Your task to perform on an android device: Search for seafood restaurants on Google Maps Image 0: 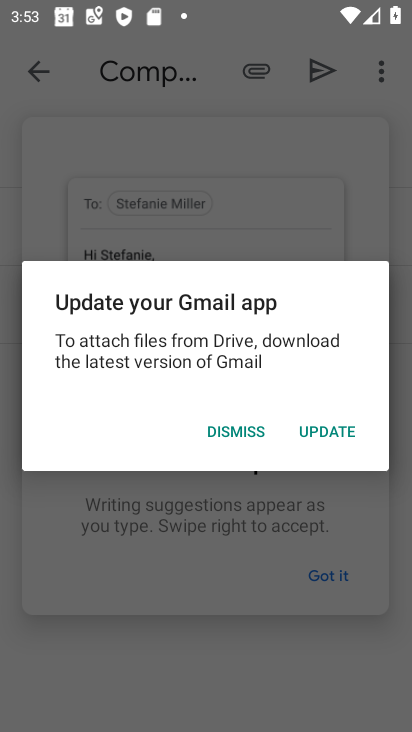
Step 0: press home button
Your task to perform on an android device: Search for seafood restaurants on Google Maps Image 1: 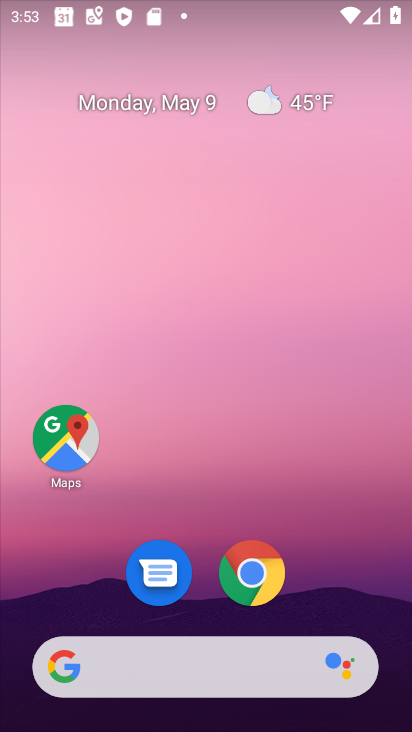
Step 1: click (65, 441)
Your task to perform on an android device: Search for seafood restaurants on Google Maps Image 2: 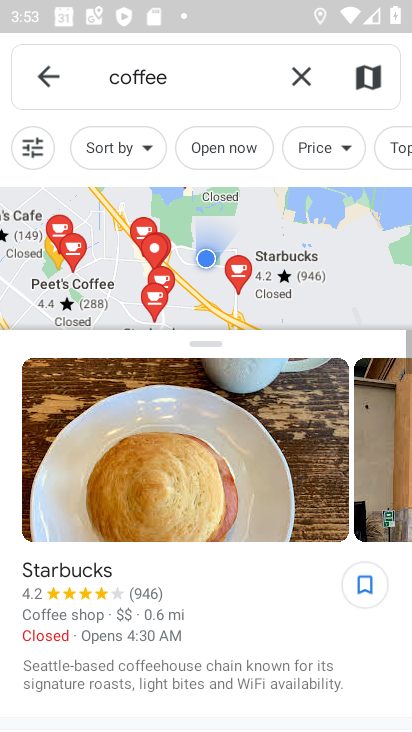
Step 2: click (287, 81)
Your task to perform on an android device: Search for seafood restaurants on Google Maps Image 3: 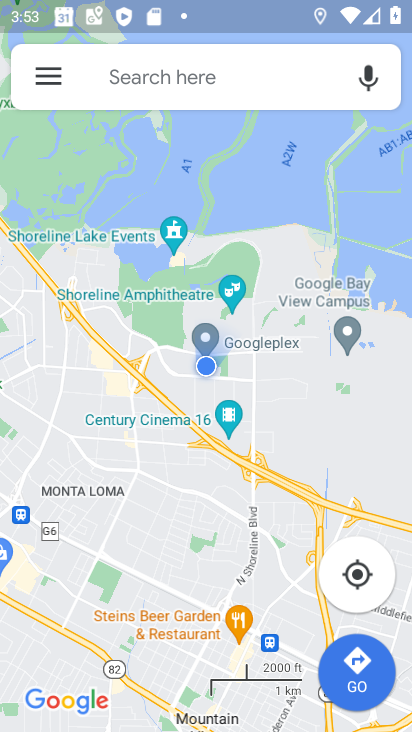
Step 3: click (116, 83)
Your task to perform on an android device: Search for seafood restaurants on Google Maps Image 4: 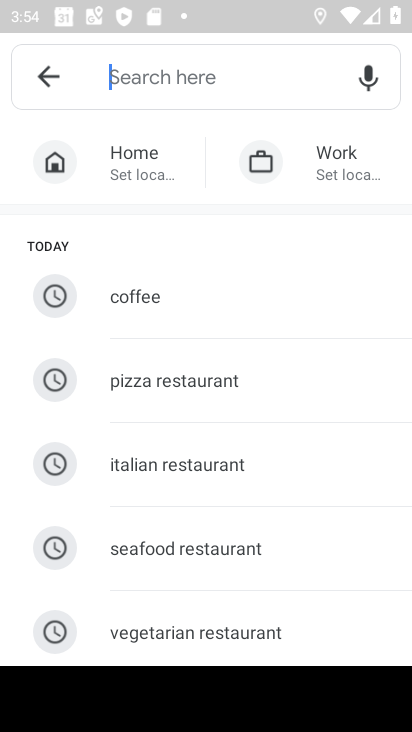
Step 4: type "seafood restaurant"
Your task to perform on an android device: Search for seafood restaurants on Google Maps Image 5: 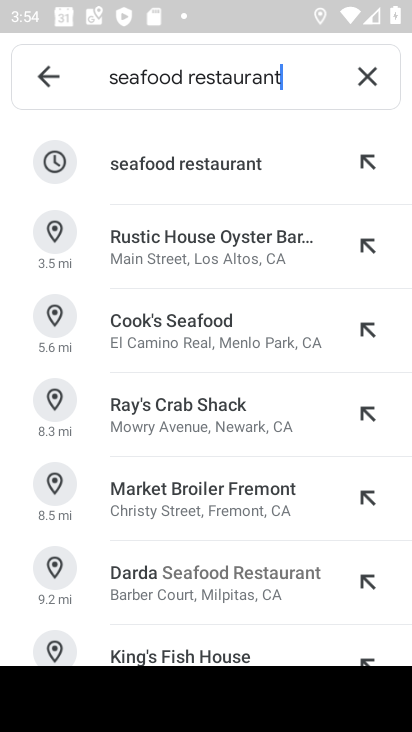
Step 5: click (165, 172)
Your task to perform on an android device: Search for seafood restaurants on Google Maps Image 6: 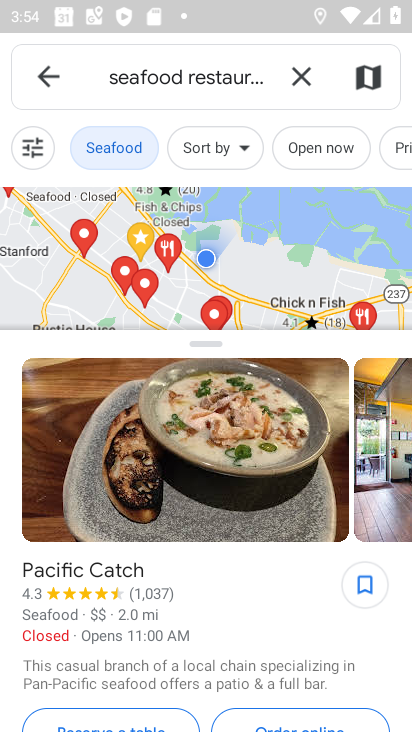
Step 6: task complete